Your task to perform on an android device: Open the Play Movies app and select the watchlist tab. Image 0: 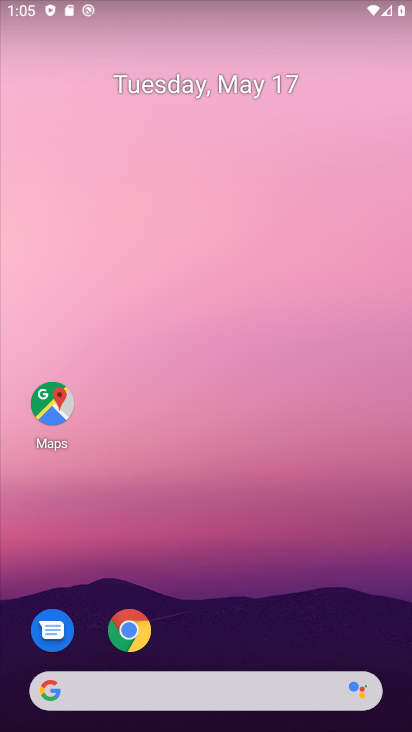
Step 0: drag from (238, 612) to (239, 40)
Your task to perform on an android device: Open the Play Movies app and select the watchlist tab. Image 1: 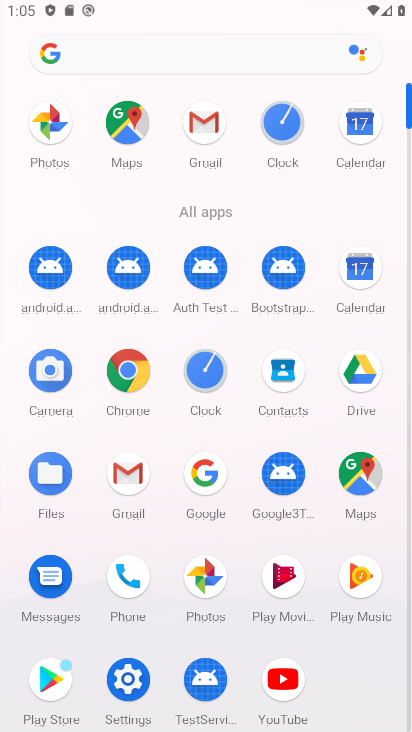
Step 1: click (282, 578)
Your task to perform on an android device: Open the Play Movies app and select the watchlist tab. Image 2: 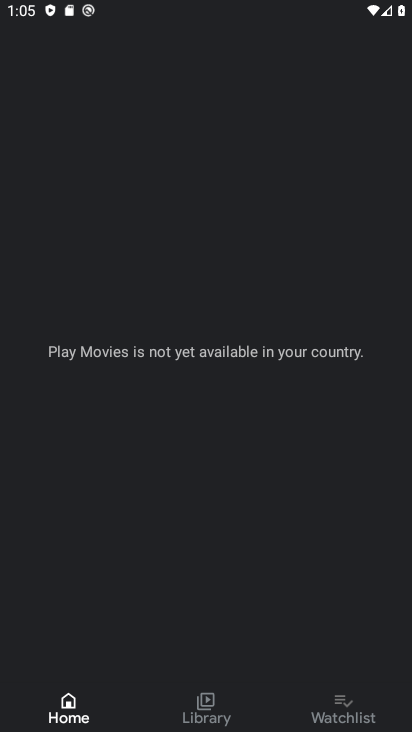
Step 2: click (344, 714)
Your task to perform on an android device: Open the Play Movies app and select the watchlist tab. Image 3: 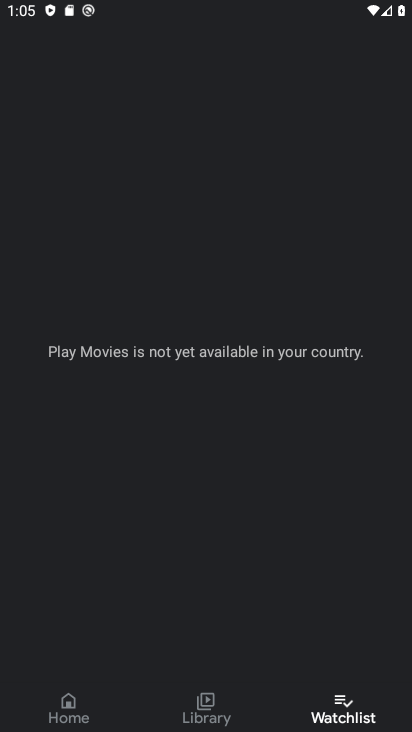
Step 3: task complete